Your task to perform on an android device: move a message to another label in the gmail app Image 0: 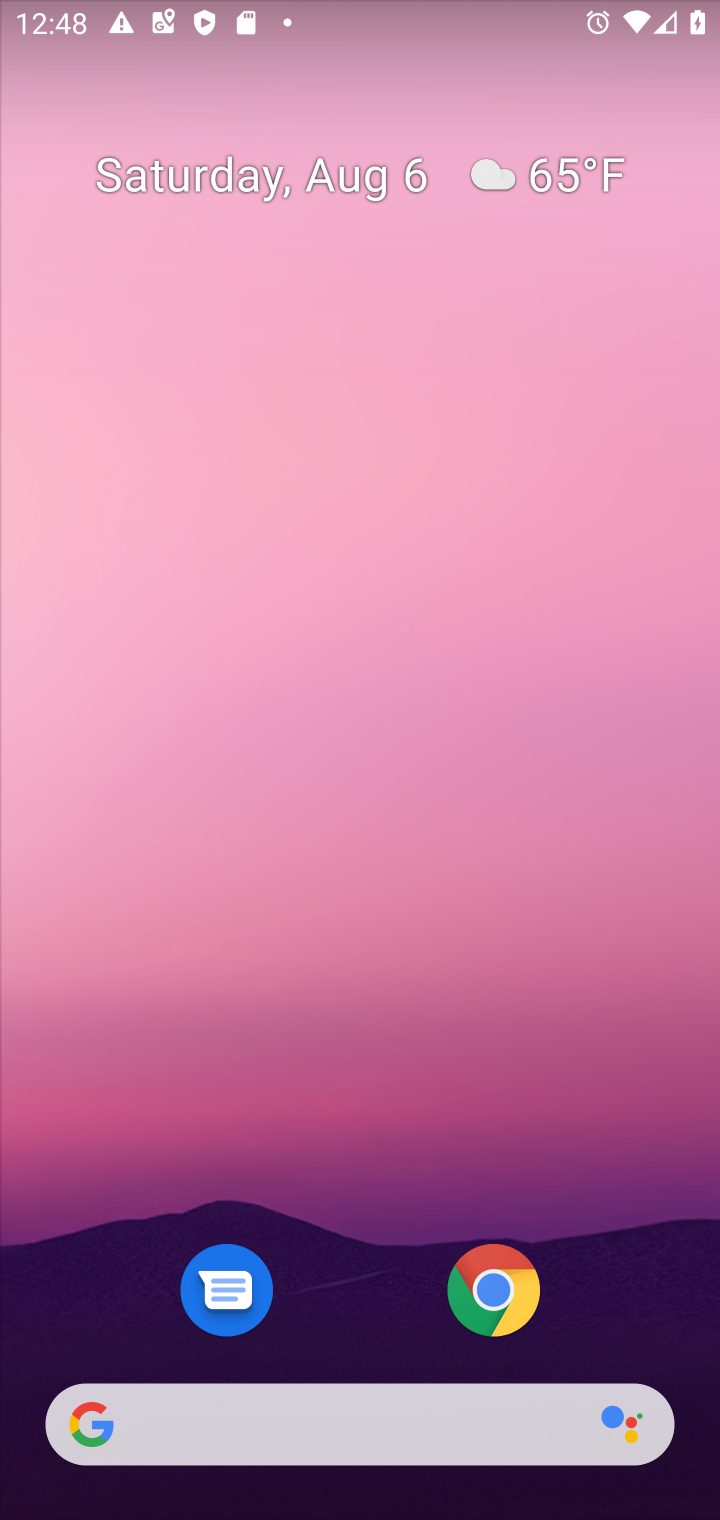
Step 0: drag from (359, 1312) to (310, 0)
Your task to perform on an android device: move a message to another label in the gmail app Image 1: 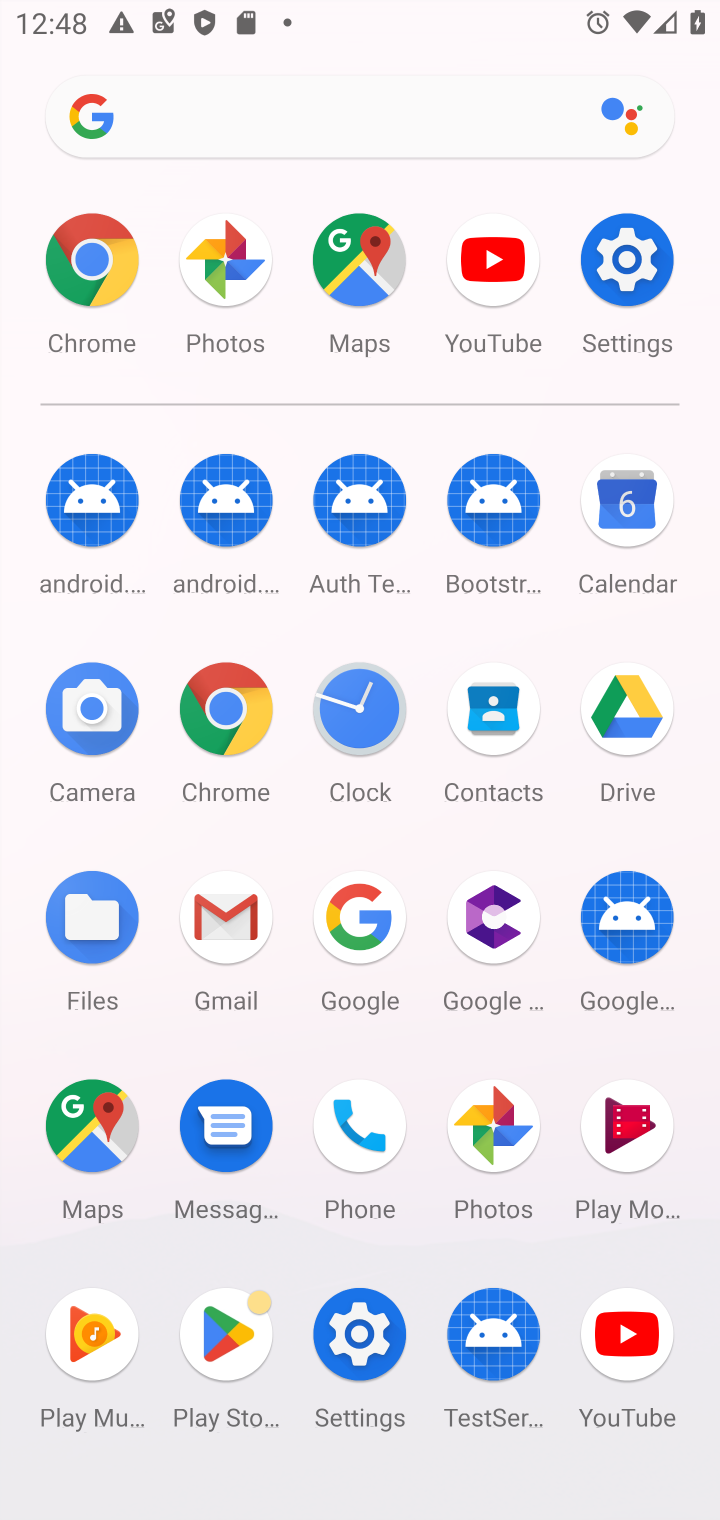
Step 1: click (220, 897)
Your task to perform on an android device: move a message to another label in the gmail app Image 2: 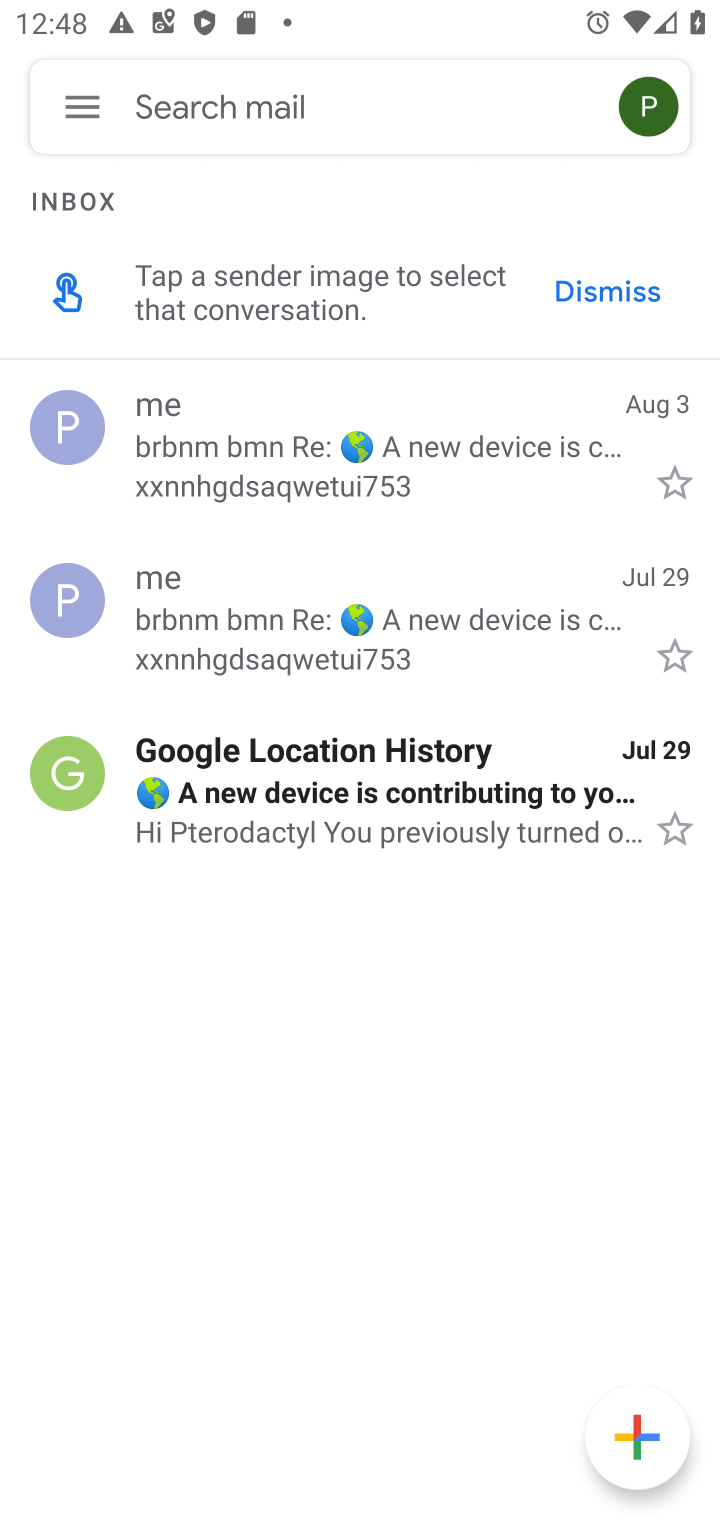
Step 2: click (57, 579)
Your task to perform on an android device: move a message to another label in the gmail app Image 3: 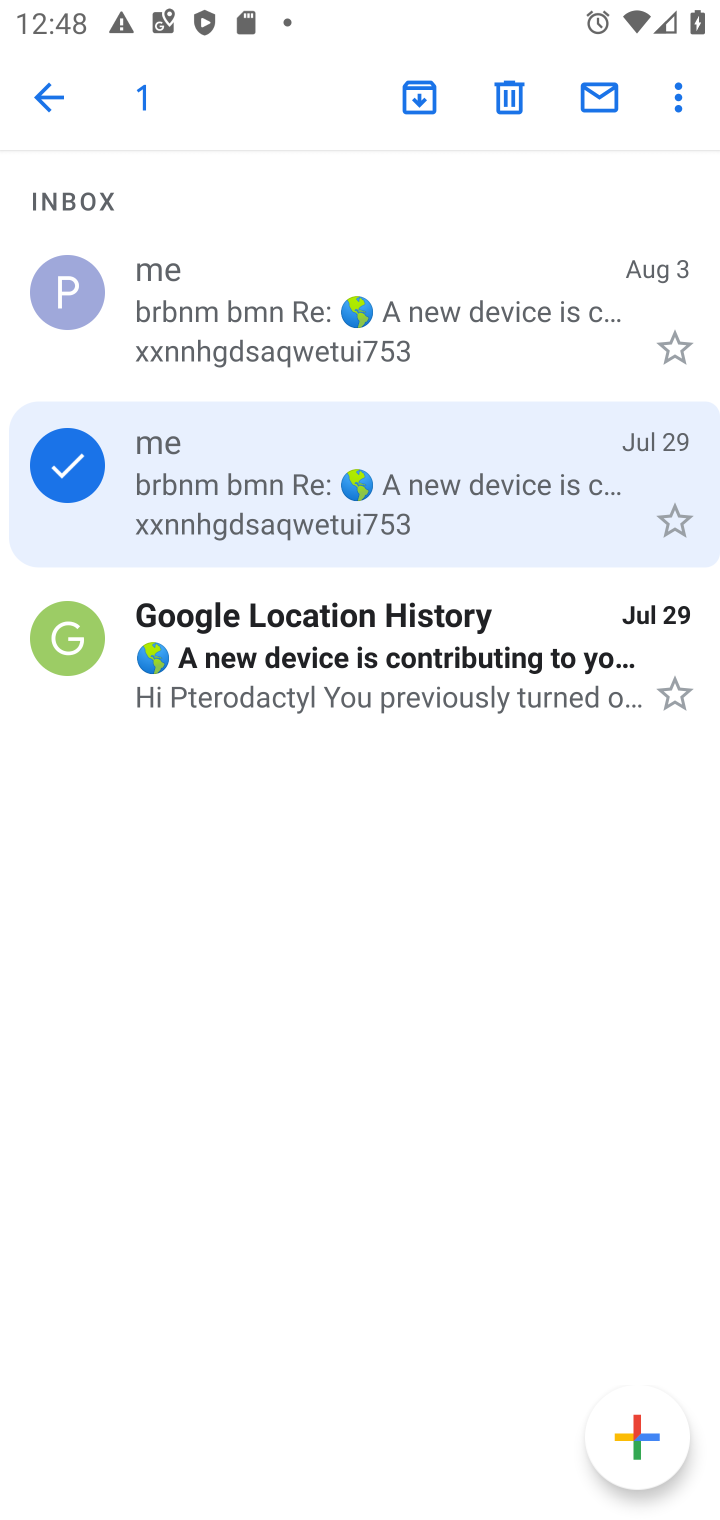
Step 3: click (675, 86)
Your task to perform on an android device: move a message to another label in the gmail app Image 4: 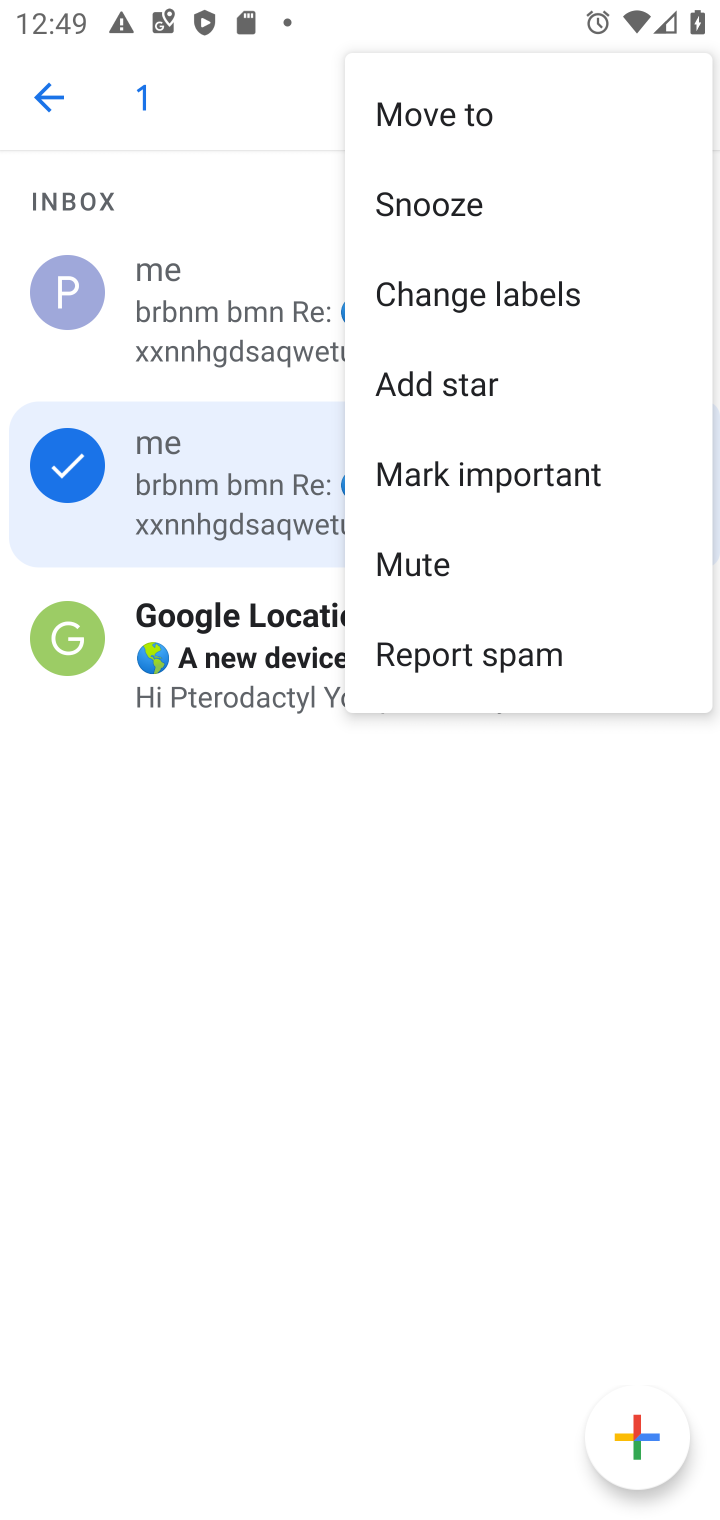
Step 4: click (491, 120)
Your task to perform on an android device: move a message to another label in the gmail app Image 5: 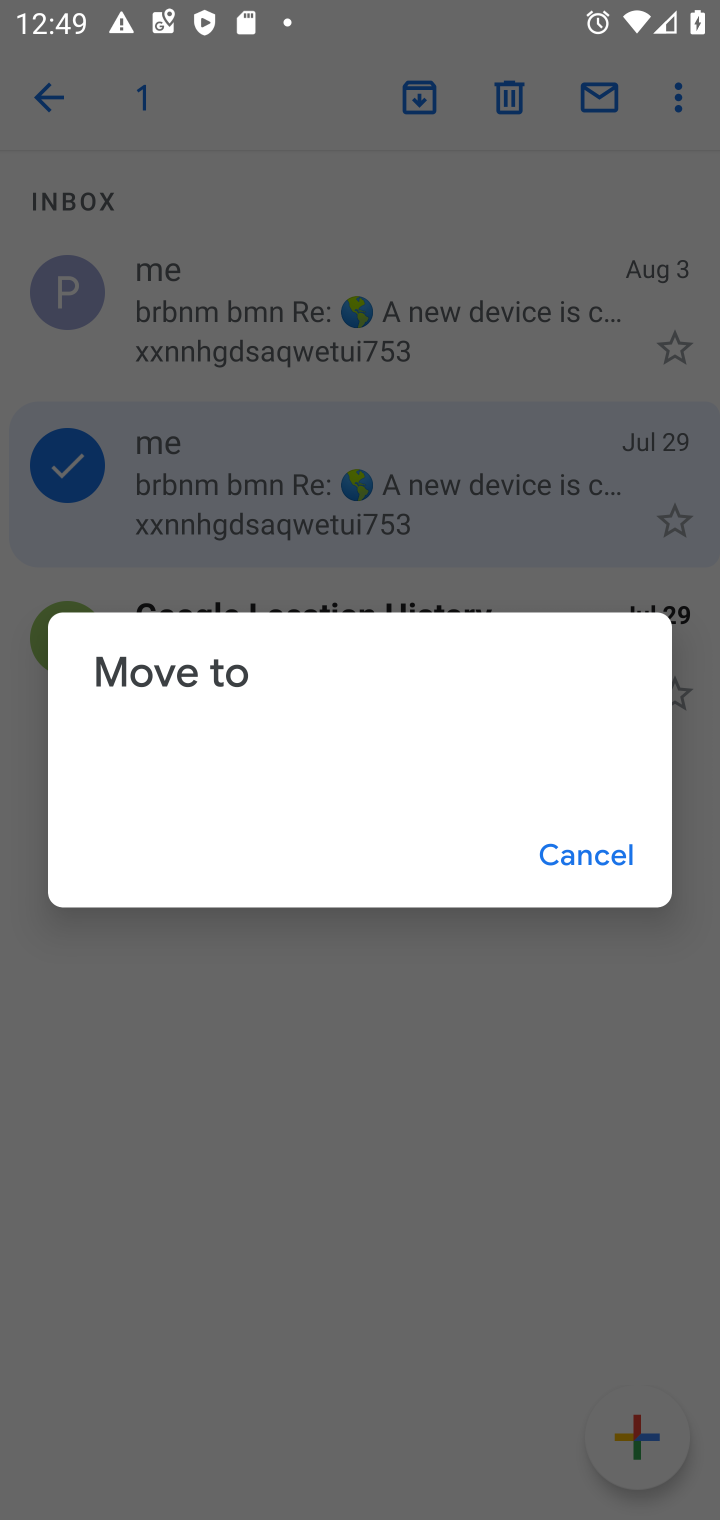
Step 5: click (578, 857)
Your task to perform on an android device: move a message to another label in the gmail app Image 6: 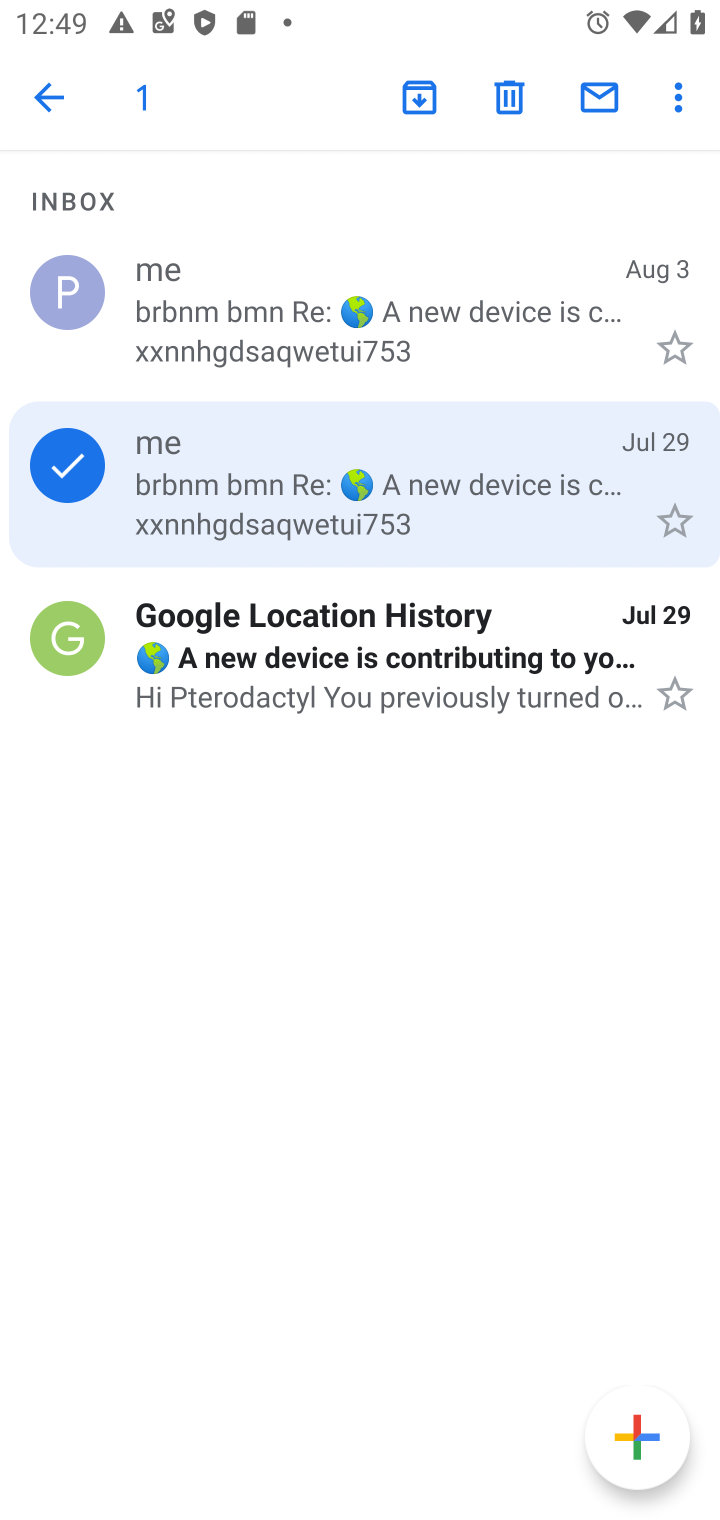
Step 6: click (676, 96)
Your task to perform on an android device: move a message to another label in the gmail app Image 7: 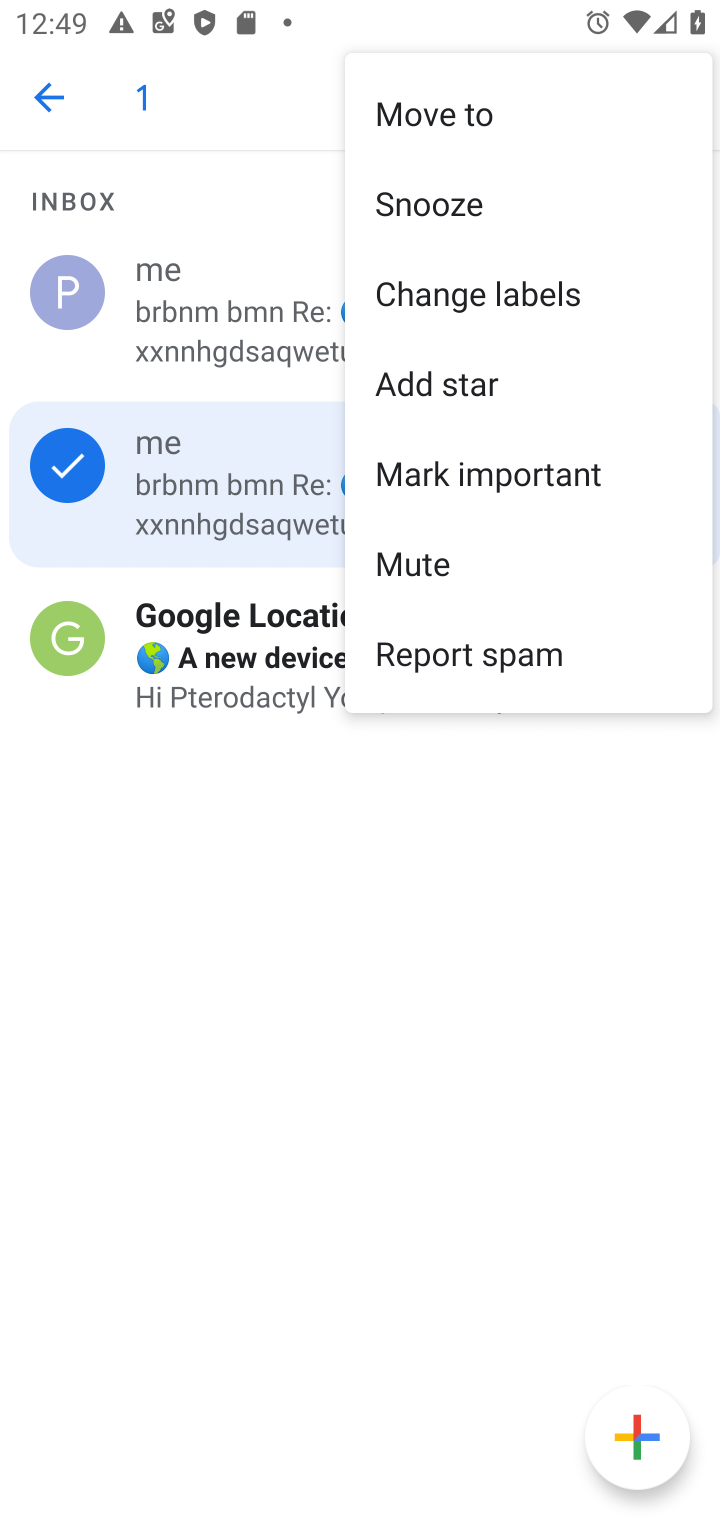
Step 7: click (562, 290)
Your task to perform on an android device: move a message to another label in the gmail app Image 8: 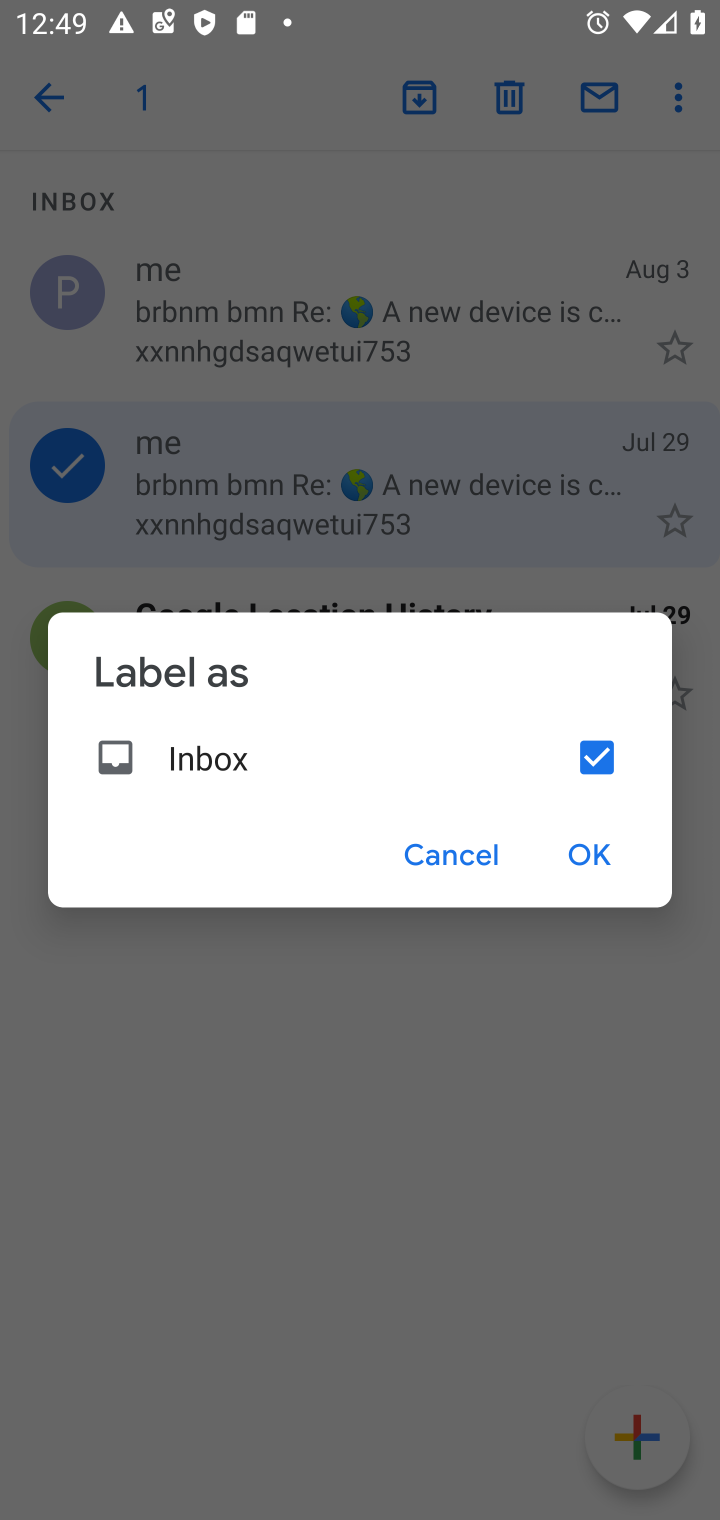
Step 8: click (584, 742)
Your task to perform on an android device: move a message to another label in the gmail app Image 9: 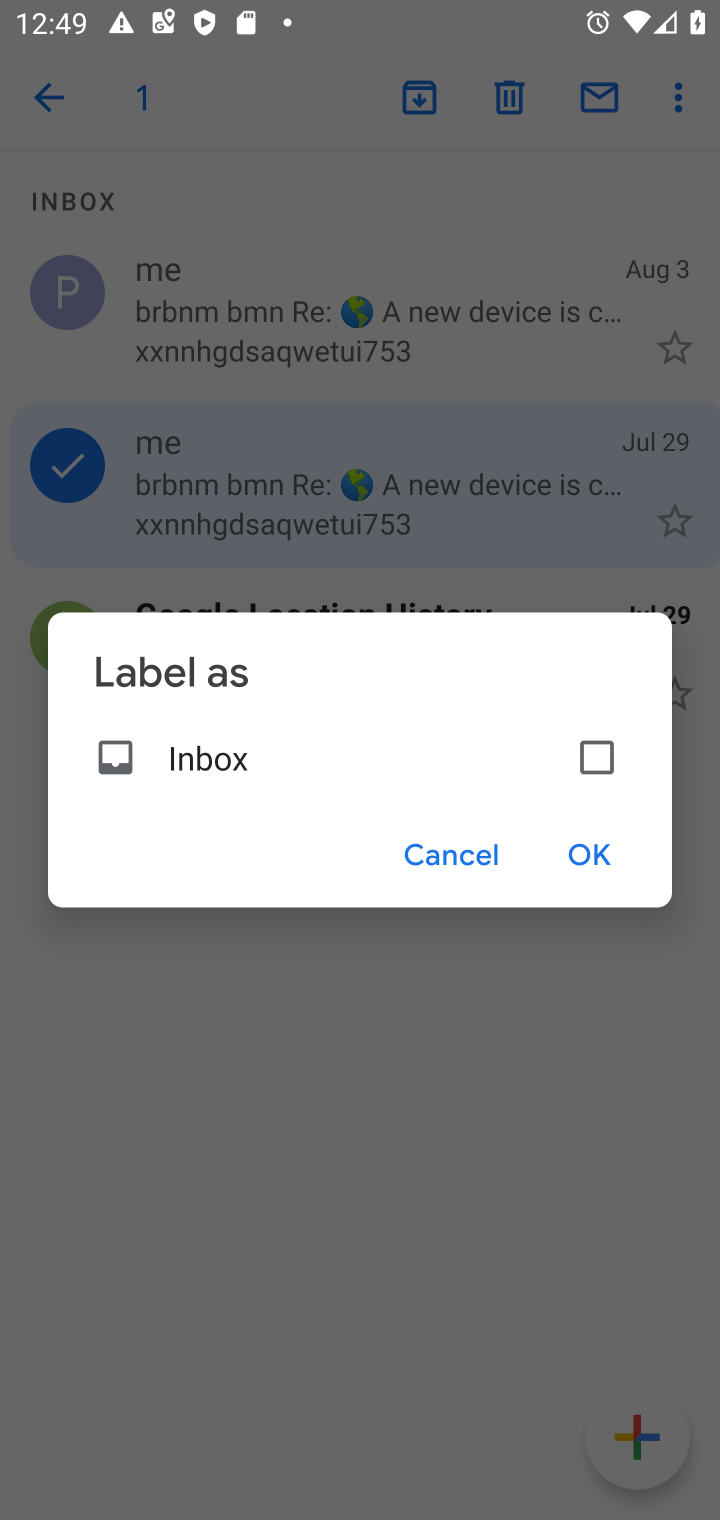
Step 9: click (584, 852)
Your task to perform on an android device: move a message to another label in the gmail app Image 10: 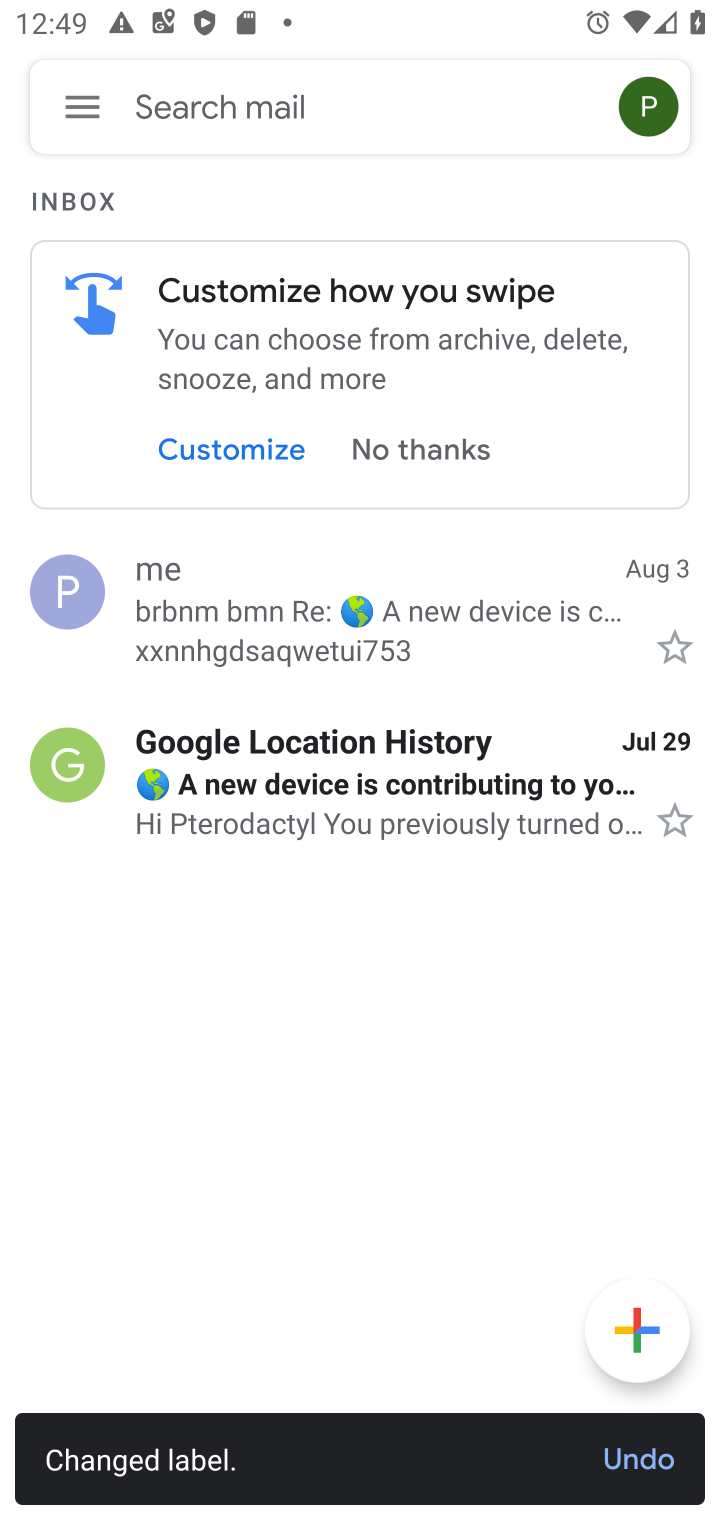
Step 10: task complete